Your task to perform on an android device: change your default location settings in chrome Image 0: 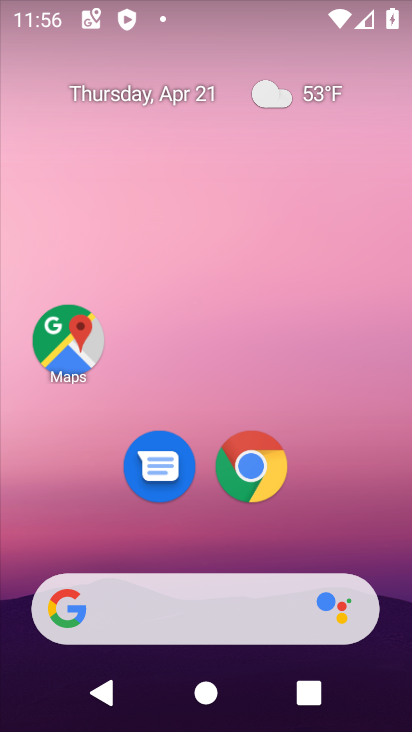
Step 0: drag from (319, 363) to (242, 62)
Your task to perform on an android device: change your default location settings in chrome Image 1: 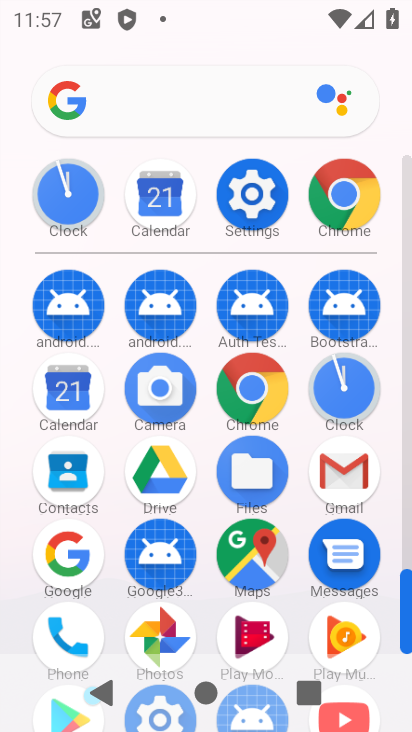
Step 1: drag from (9, 578) to (13, 262)
Your task to perform on an android device: change your default location settings in chrome Image 2: 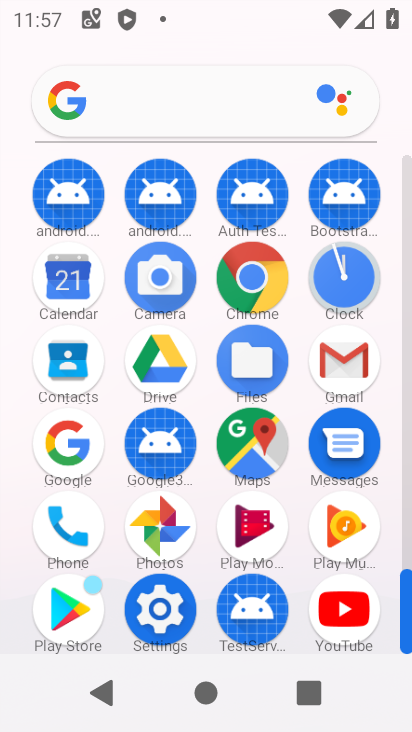
Step 2: click (254, 273)
Your task to perform on an android device: change your default location settings in chrome Image 3: 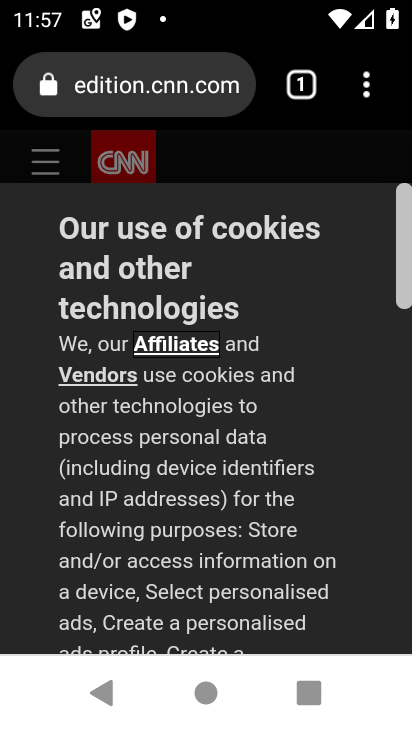
Step 3: drag from (371, 94) to (125, 520)
Your task to perform on an android device: change your default location settings in chrome Image 4: 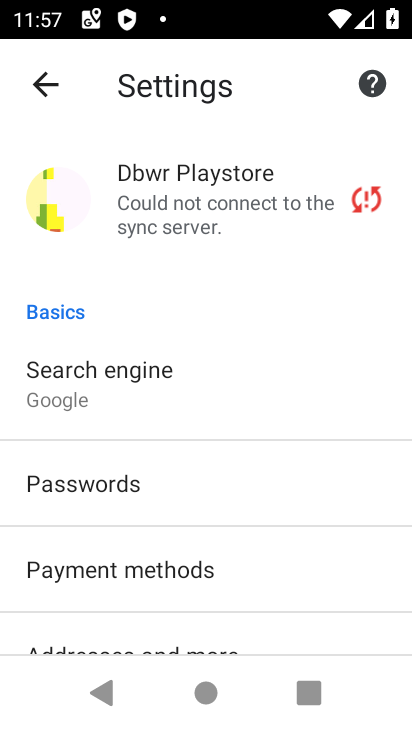
Step 4: drag from (216, 554) to (225, 244)
Your task to perform on an android device: change your default location settings in chrome Image 5: 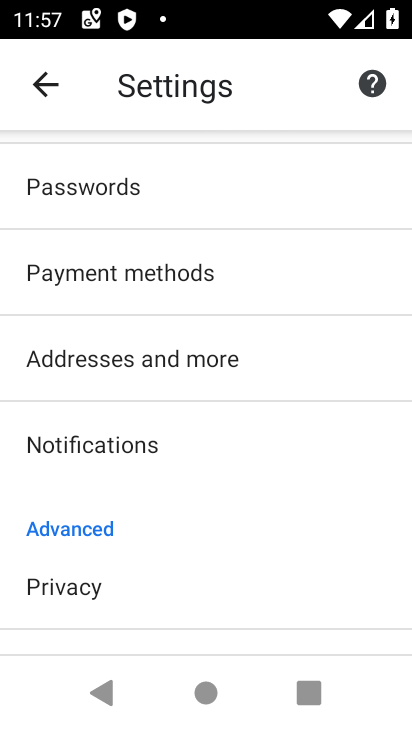
Step 5: drag from (235, 480) to (231, 164)
Your task to perform on an android device: change your default location settings in chrome Image 6: 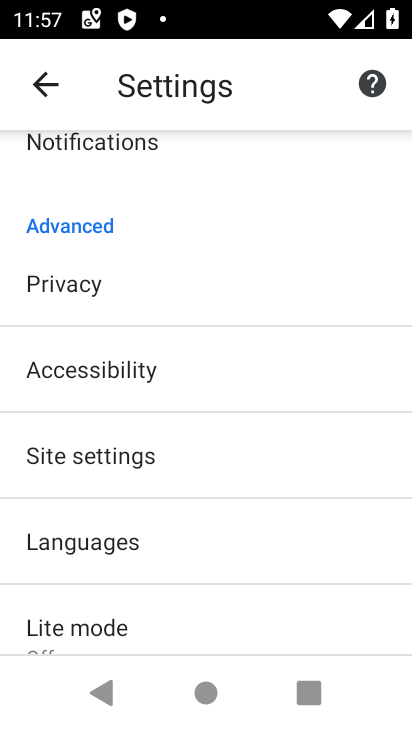
Step 6: drag from (255, 554) to (262, 241)
Your task to perform on an android device: change your default location settings in chrome Image 7: 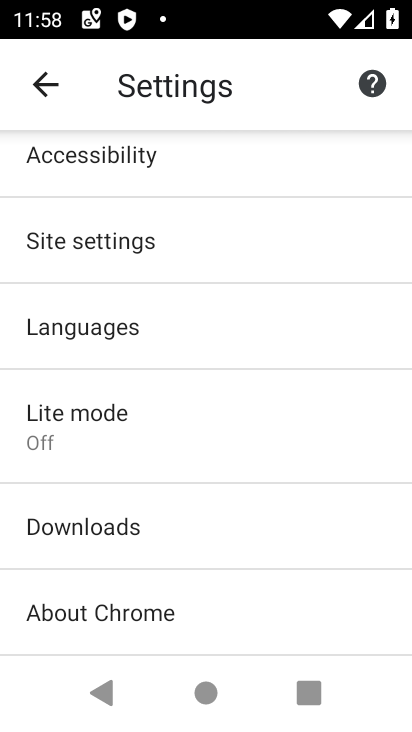
Step 7: click (106, 217)
Your task to perform on an android device: change your default location settings in chrome Image 8: 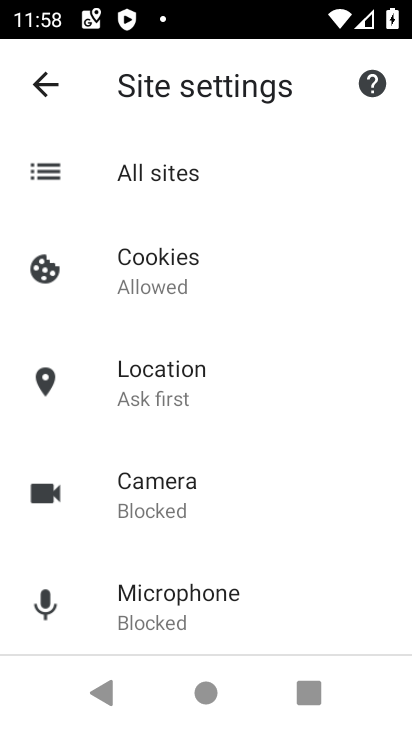
Step 8: click (185, 385)
Your task to perform on an android device: change your default location settings in chrome Image 9: 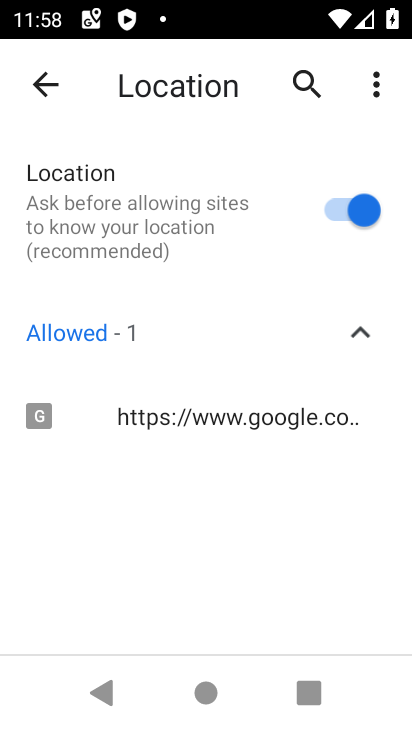
Step 9: click (336, 209)
Your task to perform on an android device: change your default location settings in chrome Image 10: 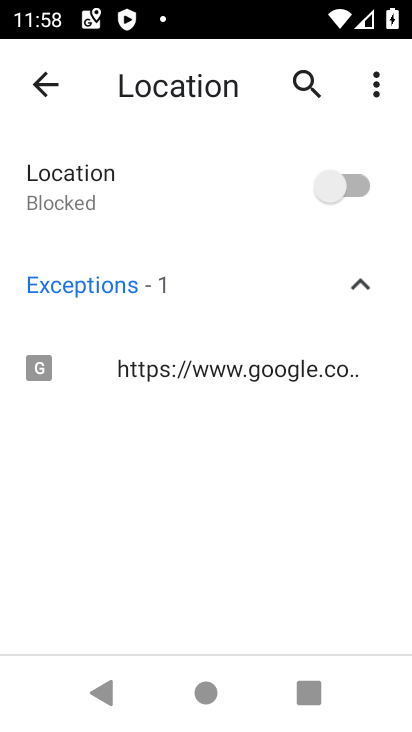
Step 10: task complete